Your task to perform on an android device: Search for pizza restaurants on Maps Image 0: 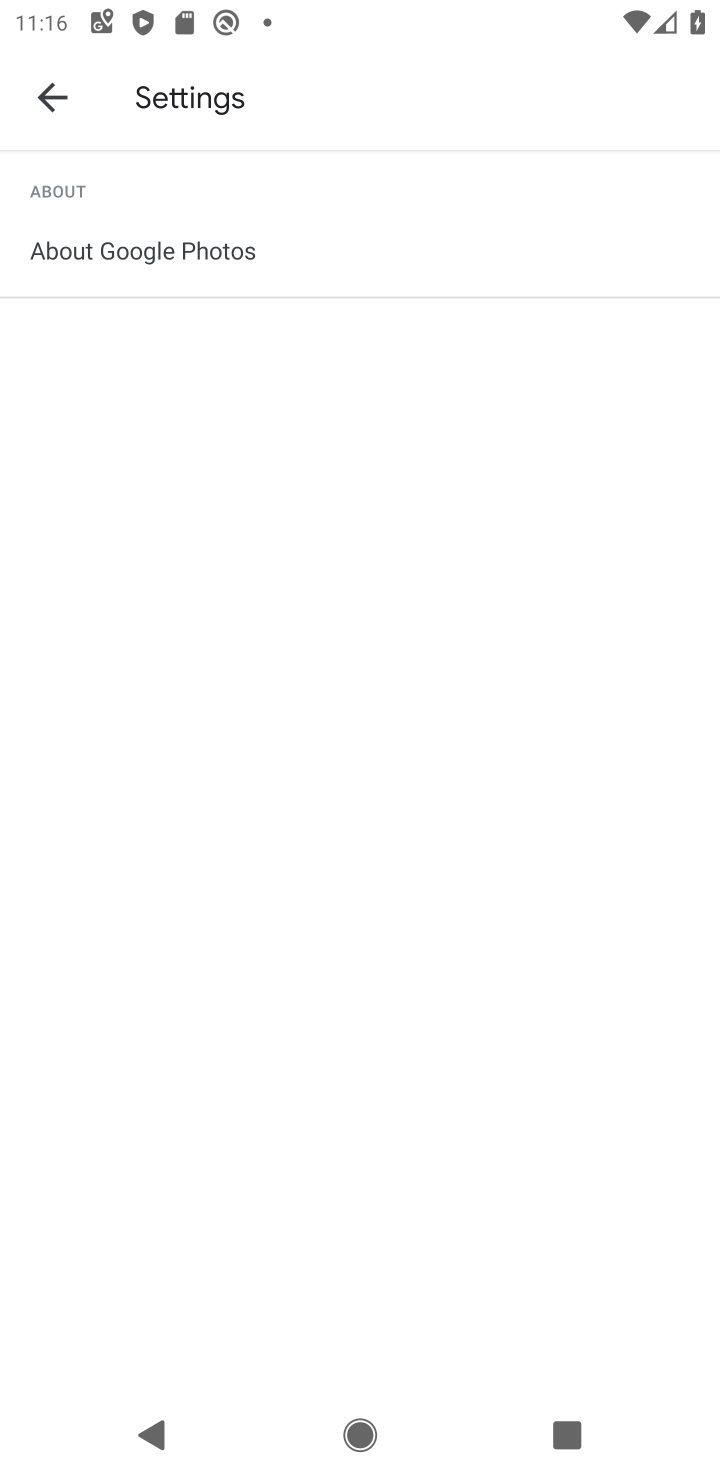
Step 0: press home button
Your task to perform on an android device: Search for pizza restaurants on Maps Image 1: 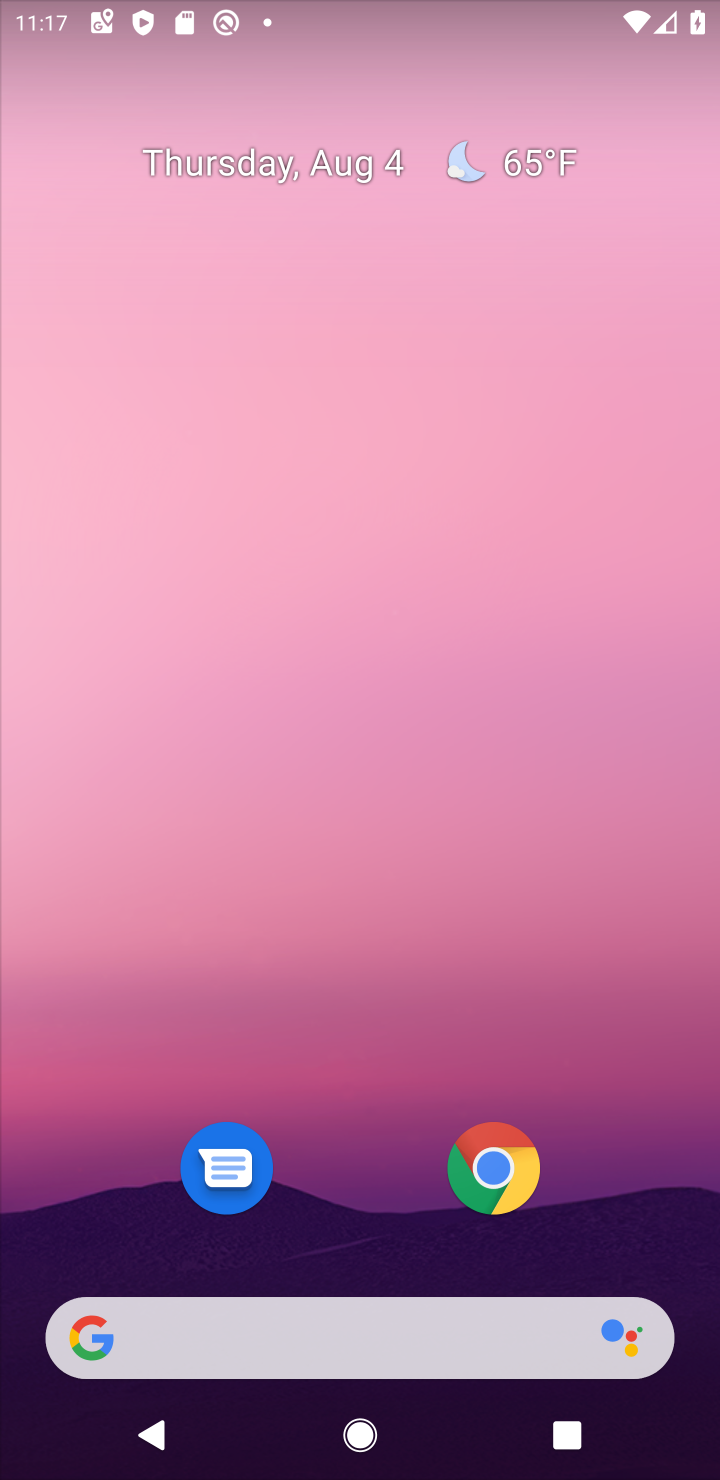
Step 1: drag from (684, 1223) to (530, 74)
Your task to perform on an android device: Search for pizza restaurants on Maps Image 2: 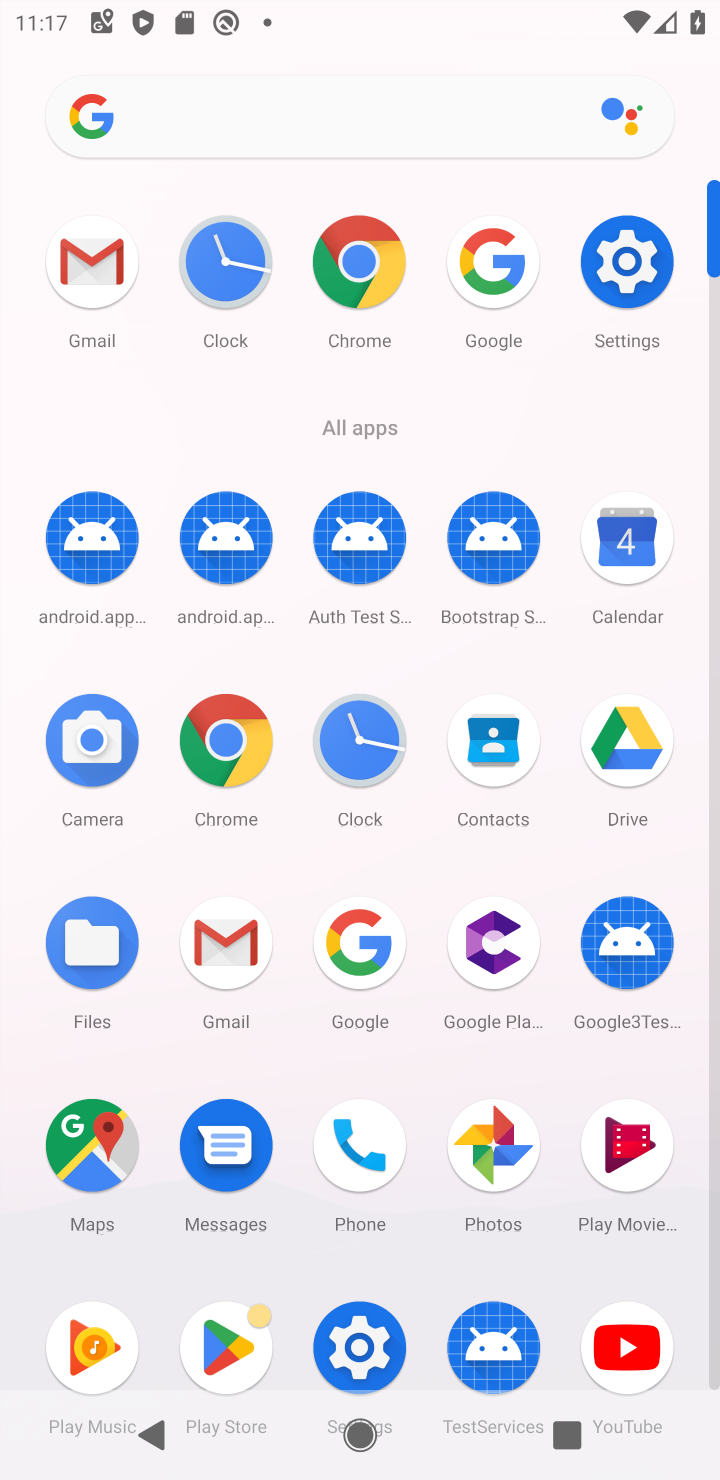
Step 2: click (472, 282)
Your task to perform on an android device: Search for pizza restaurants on Maps Image 3: 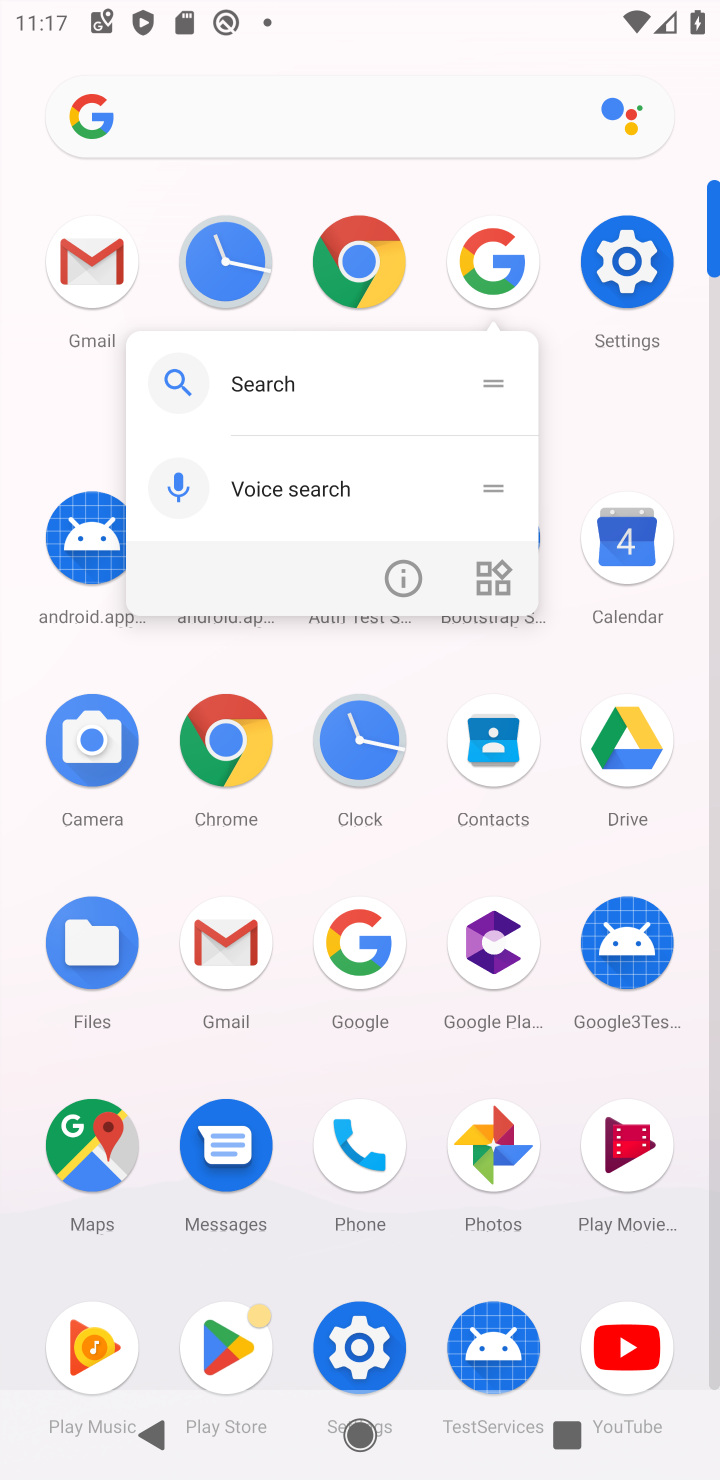
Step 3: click (75, 1138)
Your task to perform on an android device: Search for pizza restaurants on Maps Image 4: 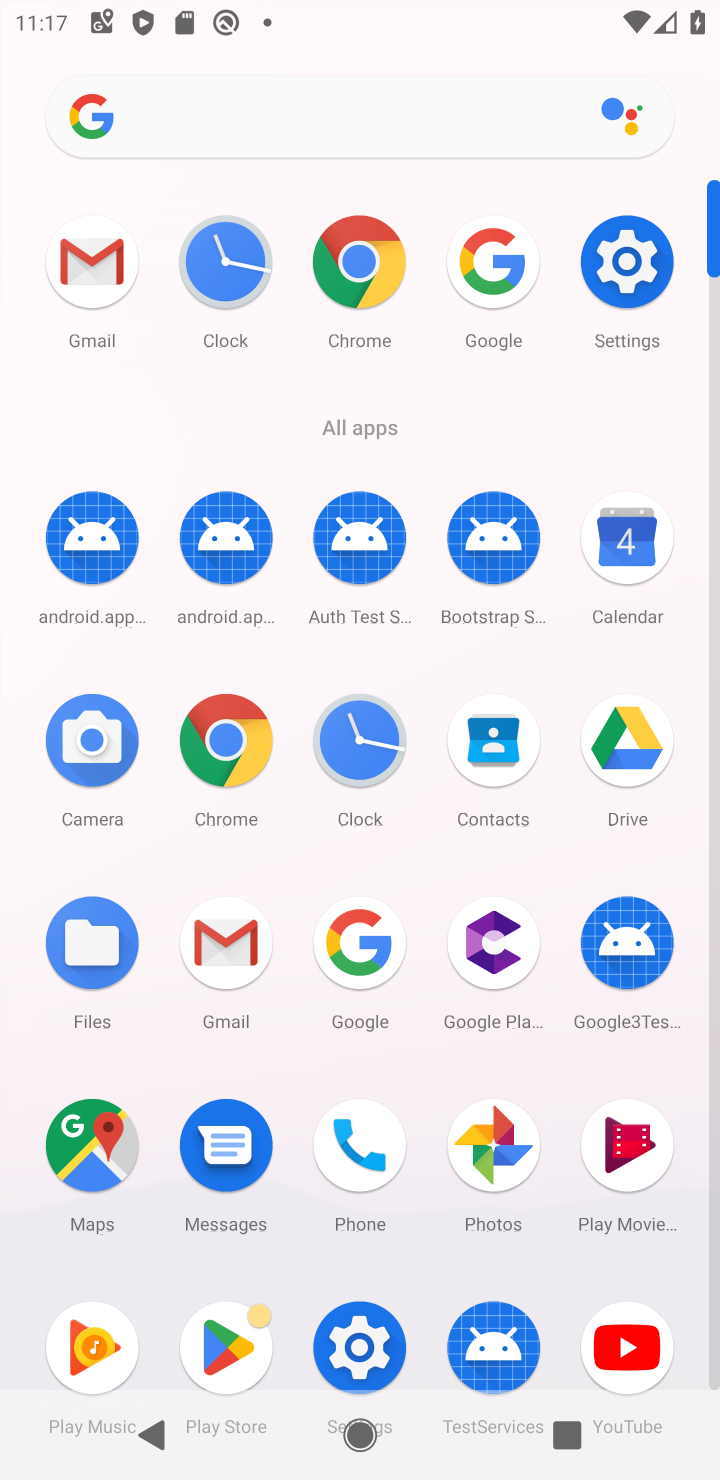
Step 4: click (75, 1138)
Your task to perform on an android device: Search for pizza restaurants on Maps Image 5: 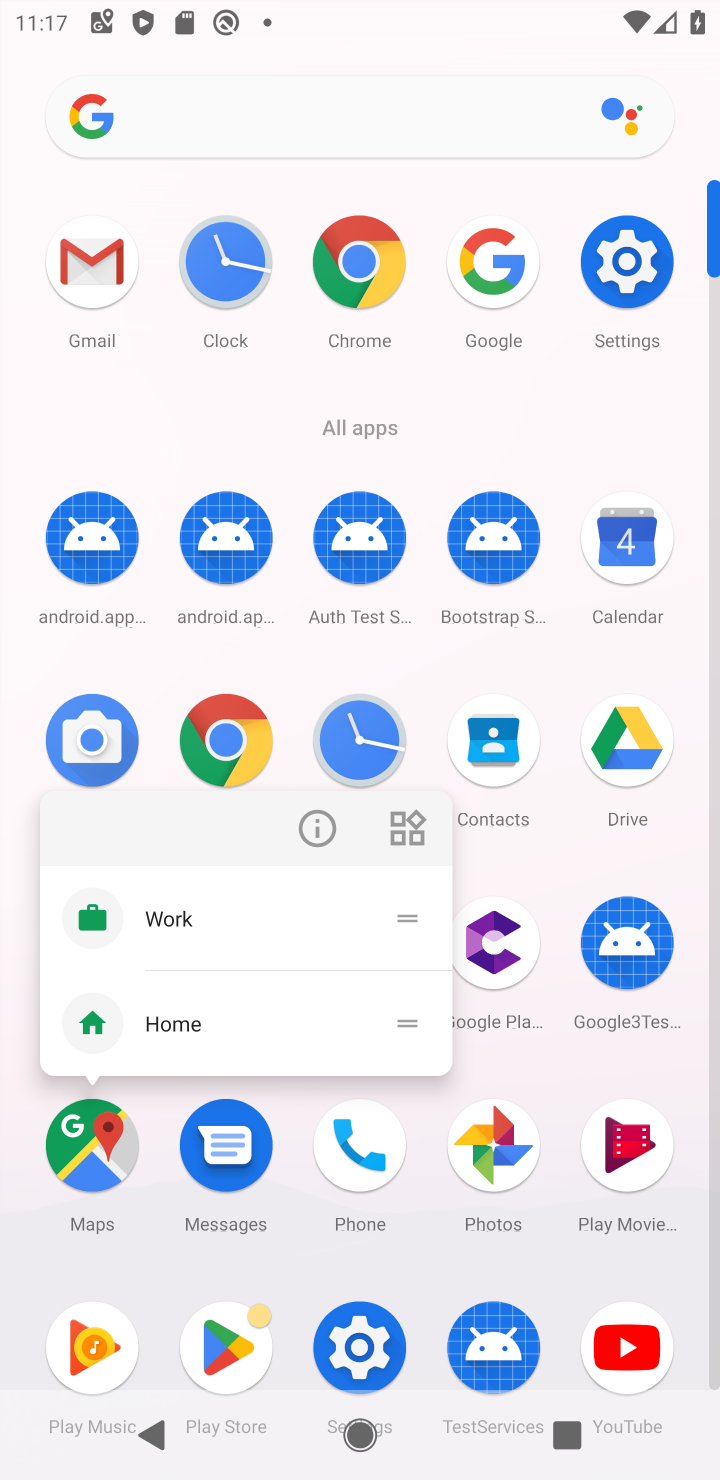
Step 5: click (75, 1138)
Your task to perform on an android device: Search for pizza restaurants on Maps Image 6: 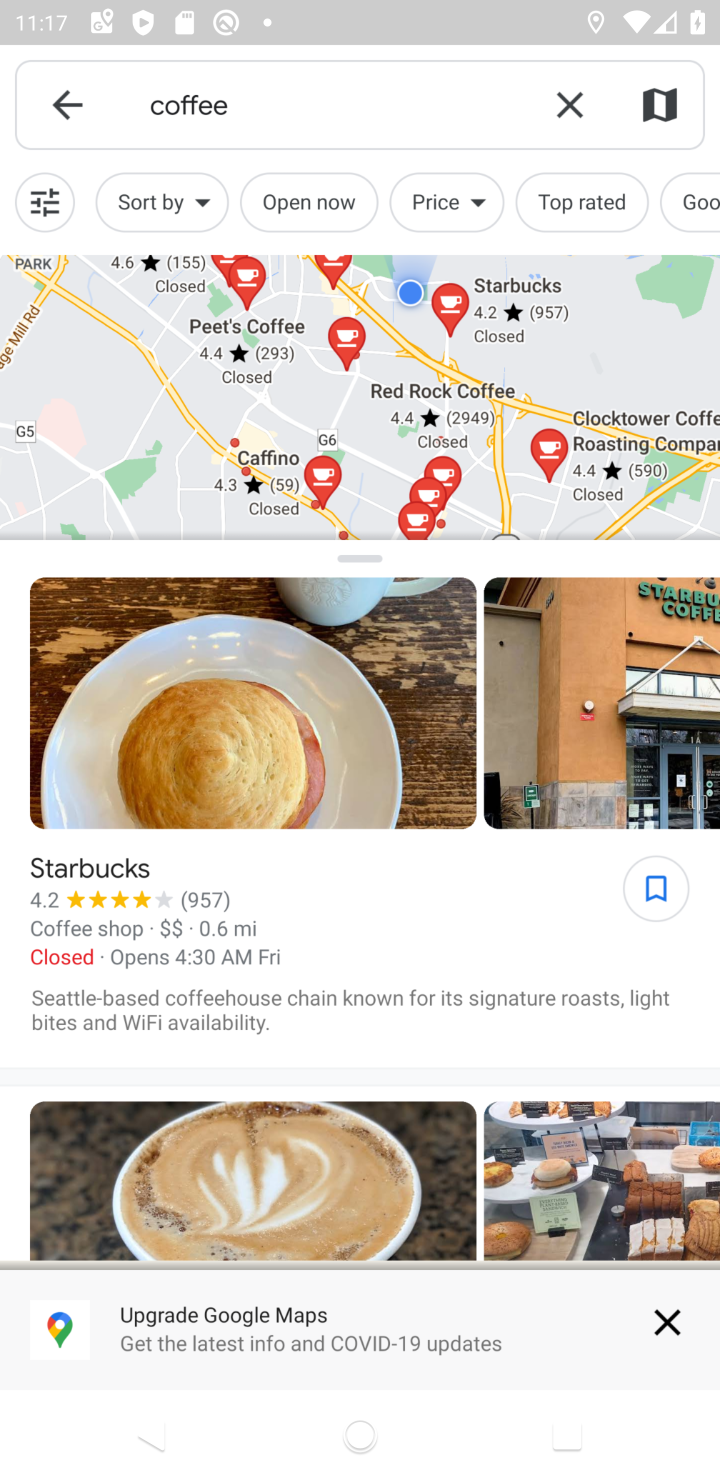
Step 6: click (554, 104)
Your task to perform on an android device: Search for pizza restaurants on Maps Image 7: 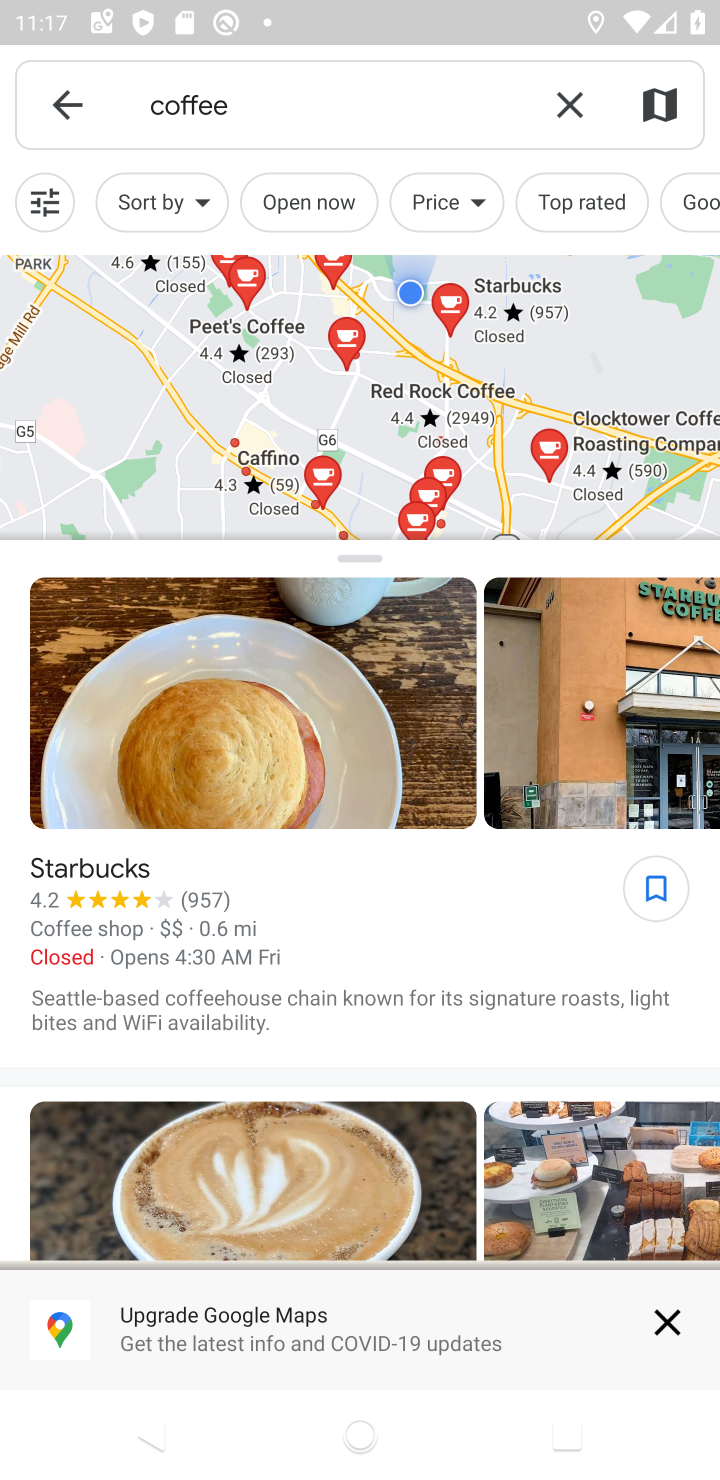
Step 7: click (573, 109)
Your task to perform on an android device: Search for pizza restaurants on Maps Image 8: 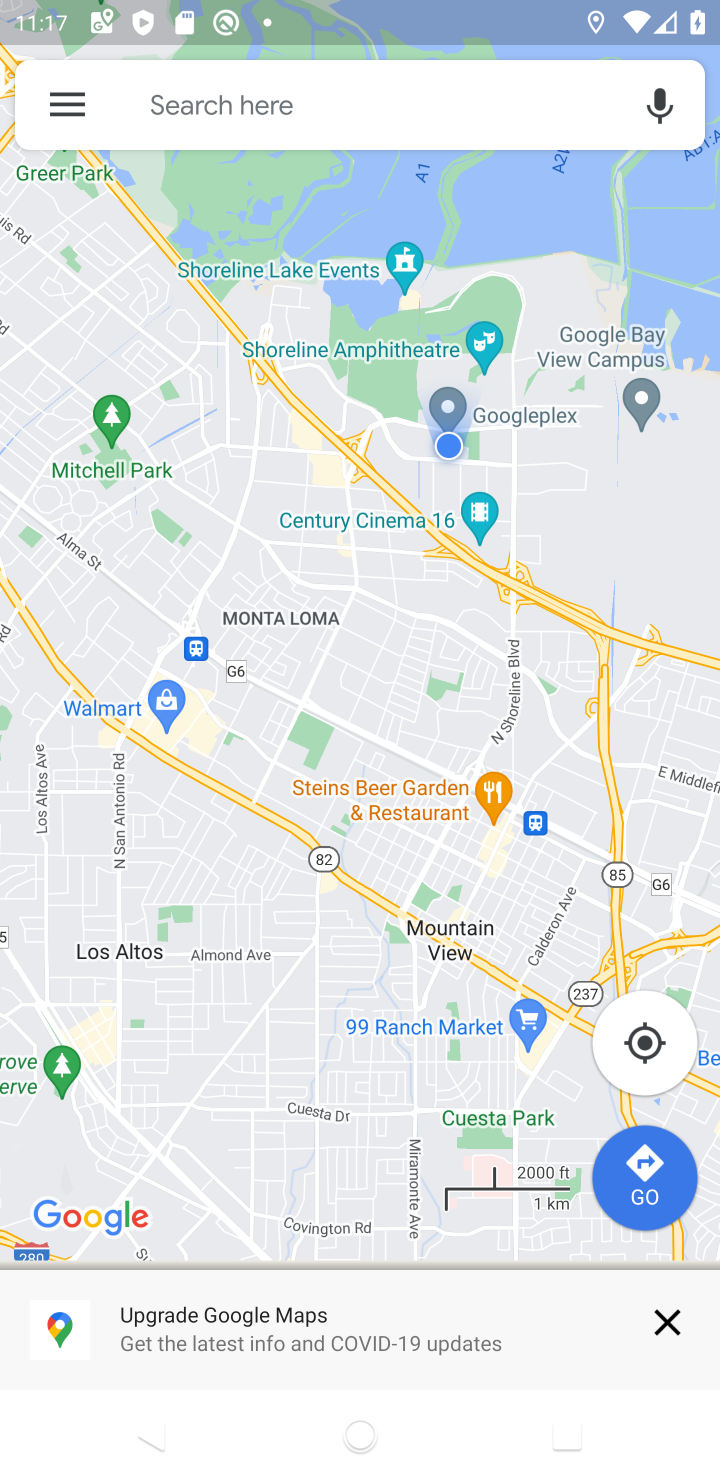
Step 8: click (258, 93)
Your task to perform on an android device: Search for pizza restaurants on Maps Image 9: 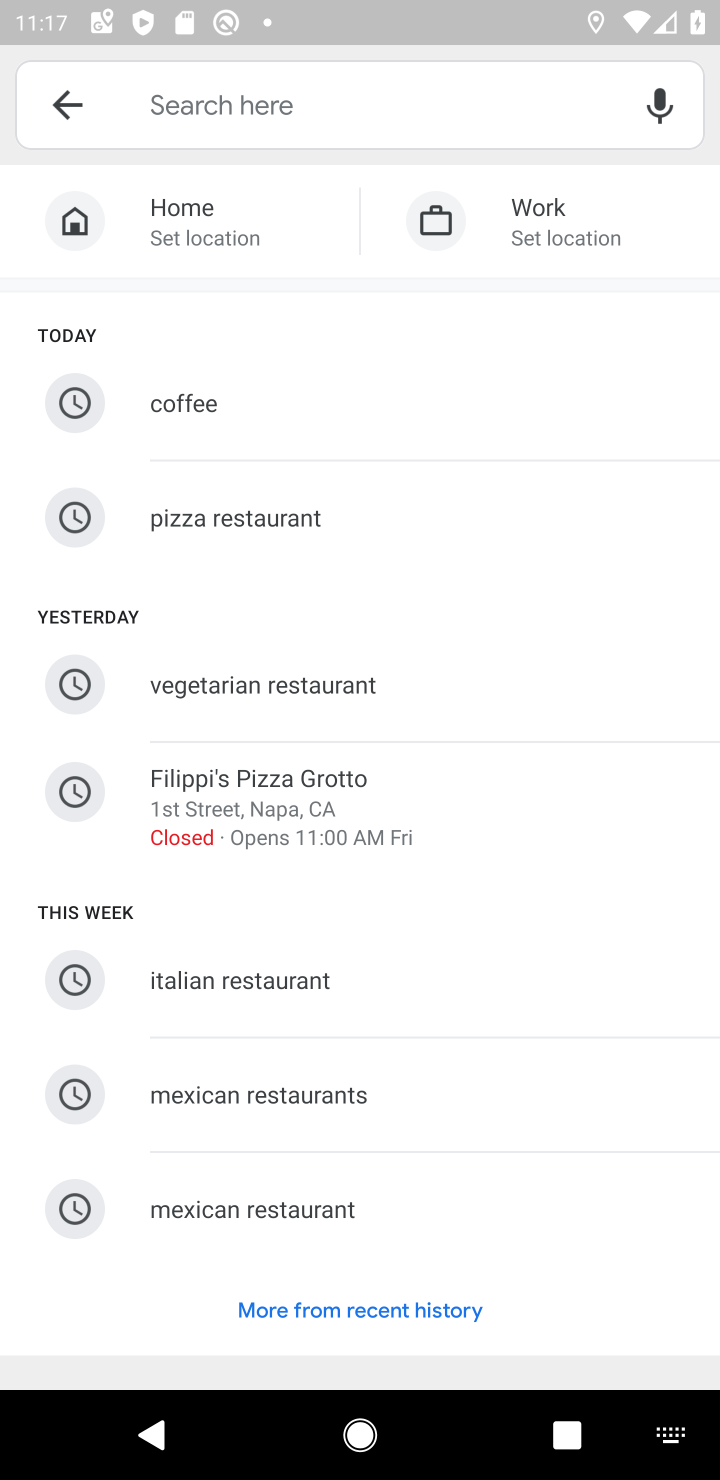
Step 9: type "pizza restaurants"
Your task to perform on an android device: Search for pizza restaurants on Maps Image 10: 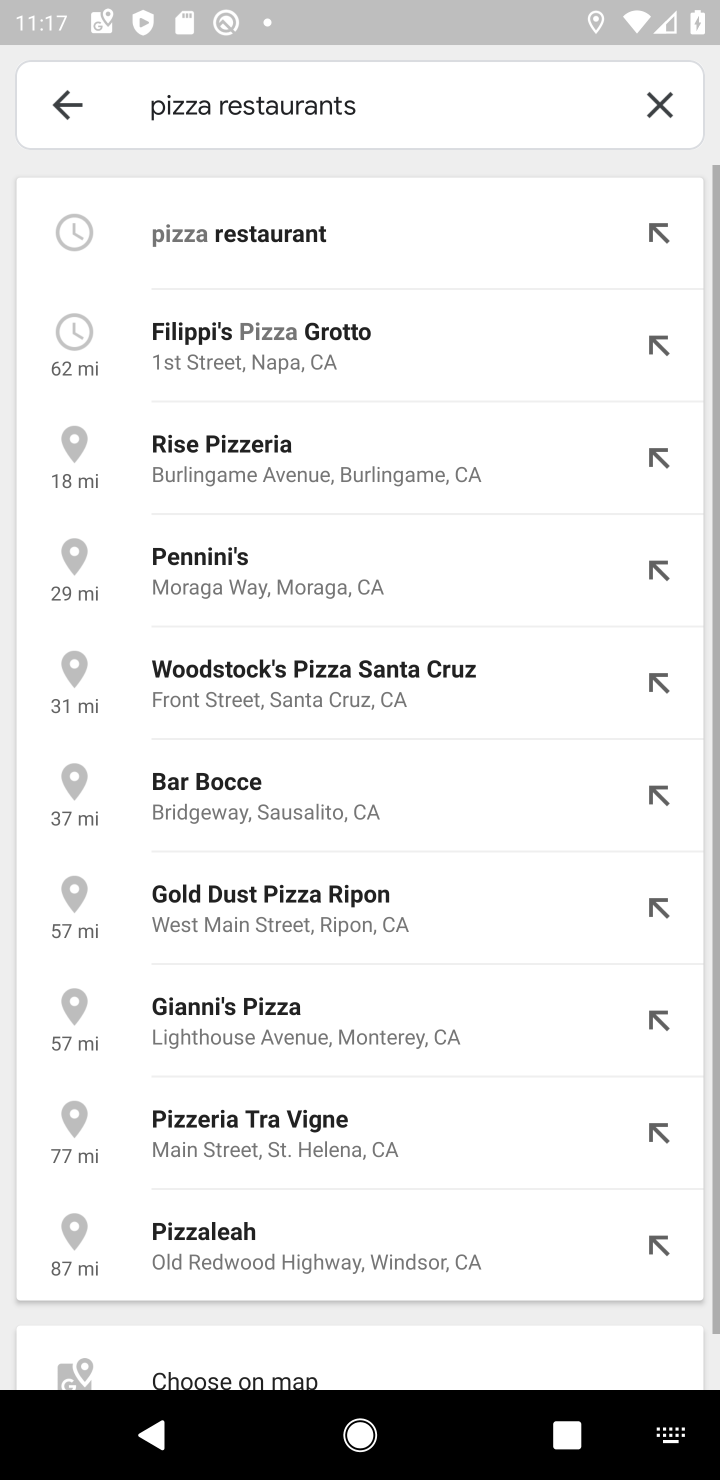
Step 10: click (300, 241)
Your task to perform on an android device: Search for pizza restaurants on Maps Image 11: 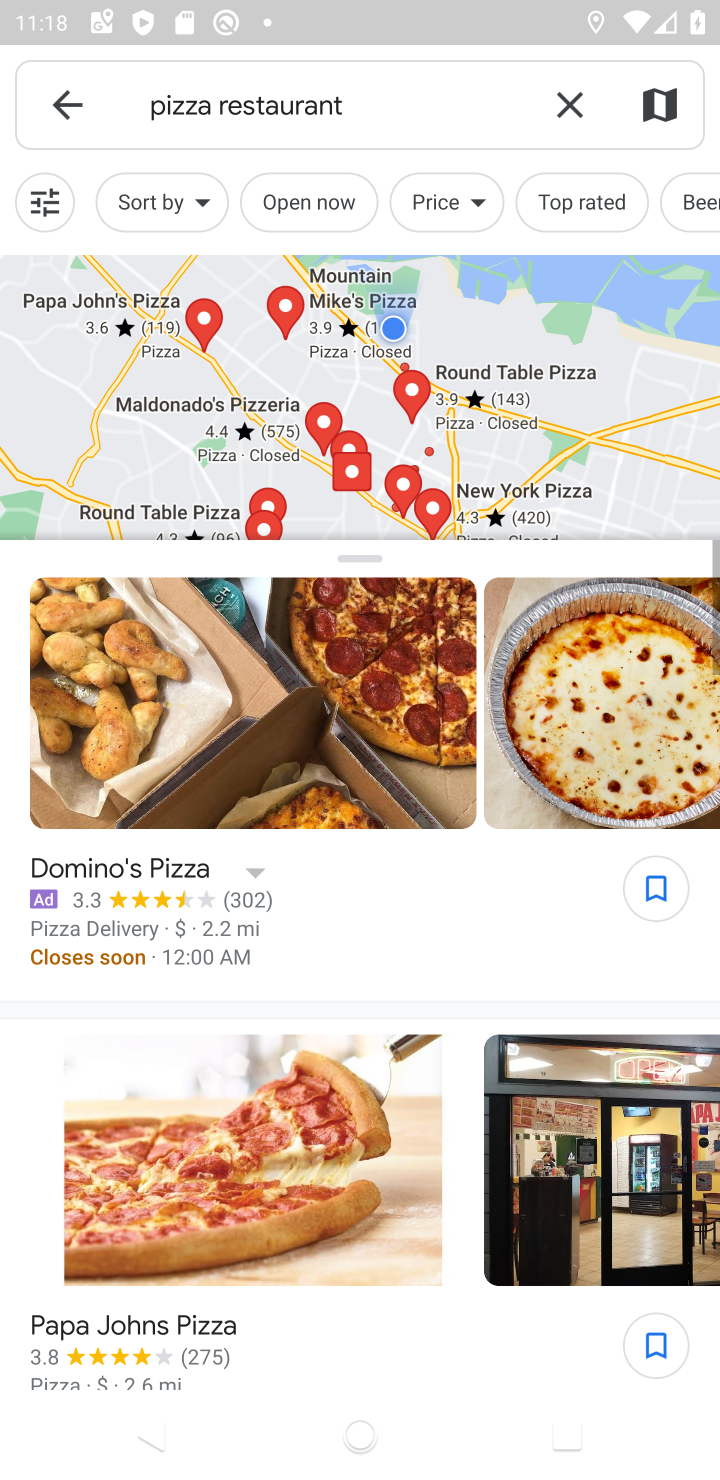
Step 11: task complete